Your task to perform on an android device: turn on the 24-hour format for clock Image 0: 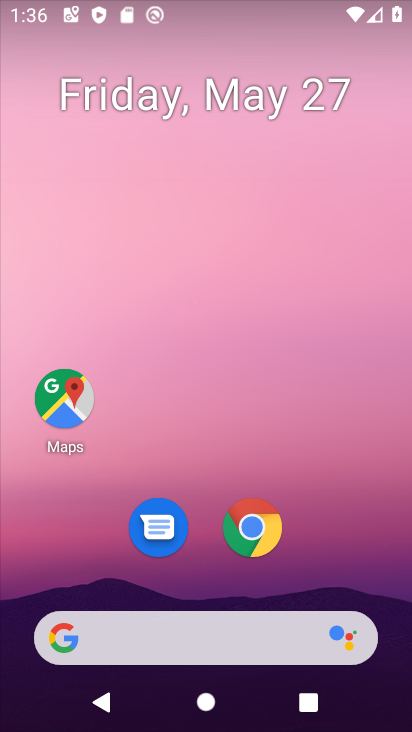
Step 0: drag from (199, 577) to (187, 200)
Your task to perform on an android device: turn on the 24-hour format for clock Image 1: 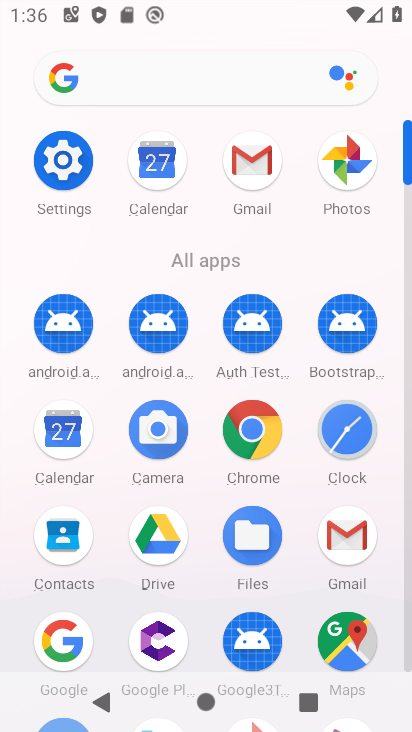
Step 1: click (348, 430)
Your task to perform on an android device: turn on the 24-hour format for clock Image 2: 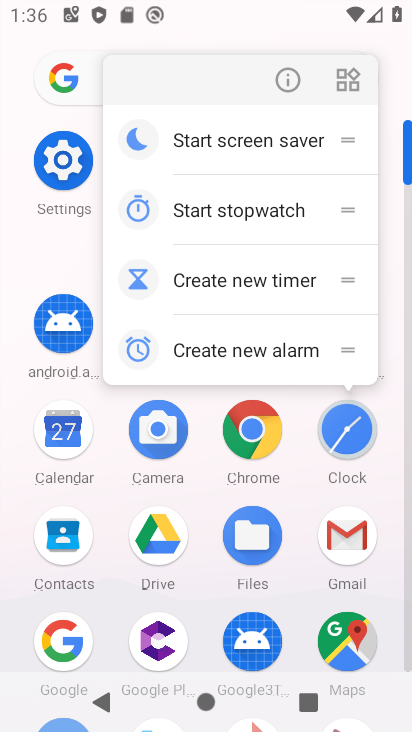
Step 2: click (345, 426)
Your task to perform on an android device: turn on the 24-hour format for clock Image 3: 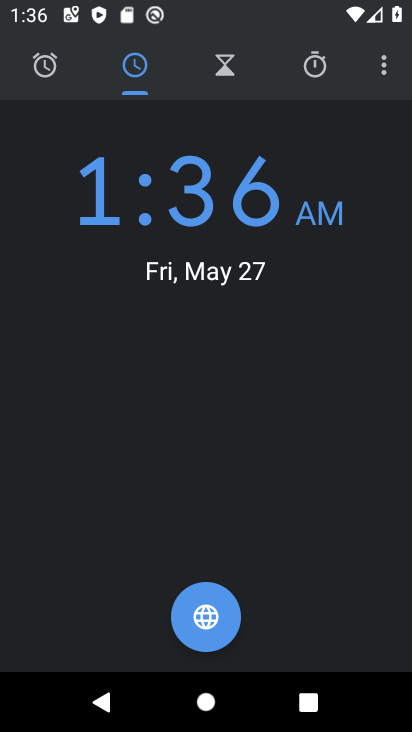
Step 3: click (386, 67)
Your task to perform on an android device: turn on the 24-hour format for clock Image 4: 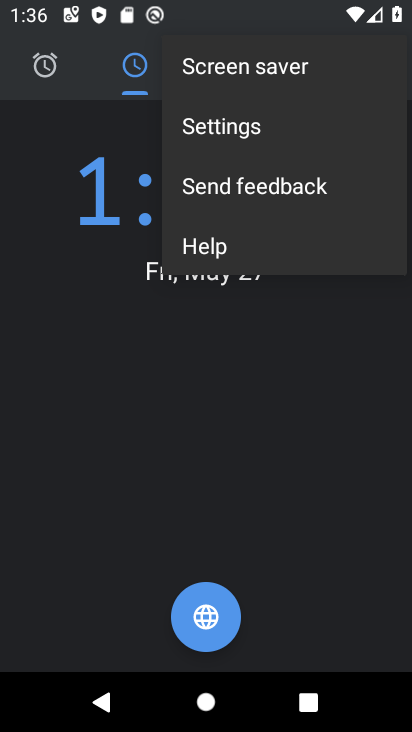
Step 4: click (249, 137)
Your task to perform on an android device: turn on the 24-hour format for clock Image 5: 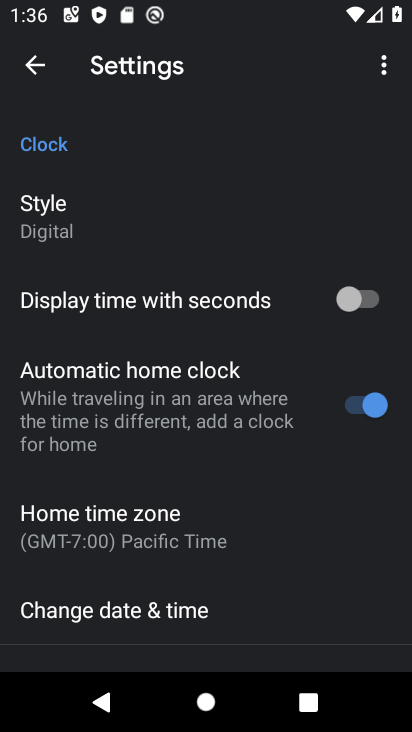
Step 5: drag from (113, 516) to (176, 192)
Your task to perform on an android device: turn on the 24-hour format for clock Image 6: 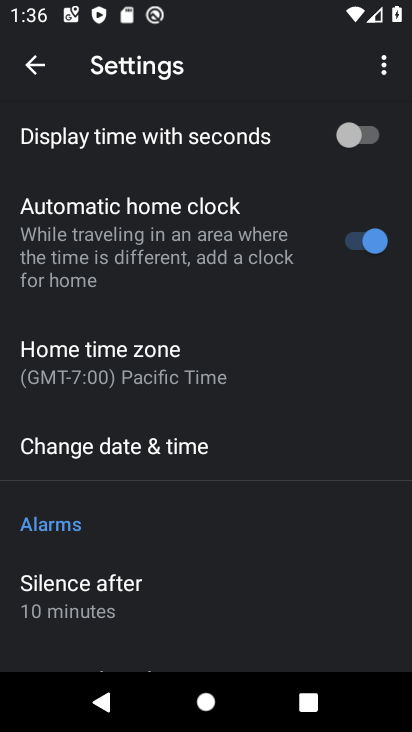
Step 6: click (131, 443)
Your task to perform on an android device: turn on the 24-hour format for clock Image 7: 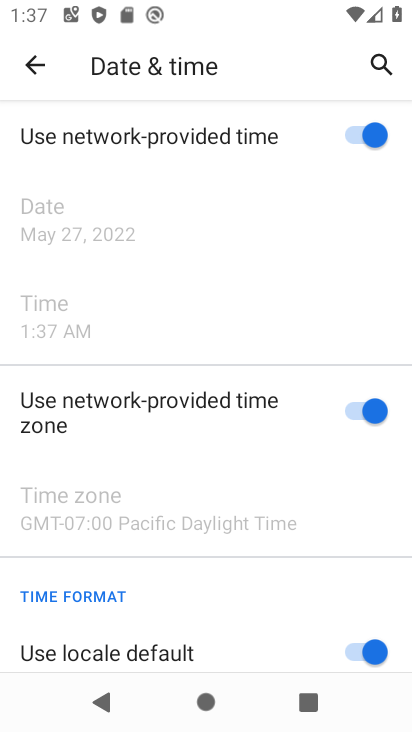
Step 7: drag from (184, 506) to (343, 127)
Your task to perform on an android device: turn on the 24-hour format for clock Image 8: 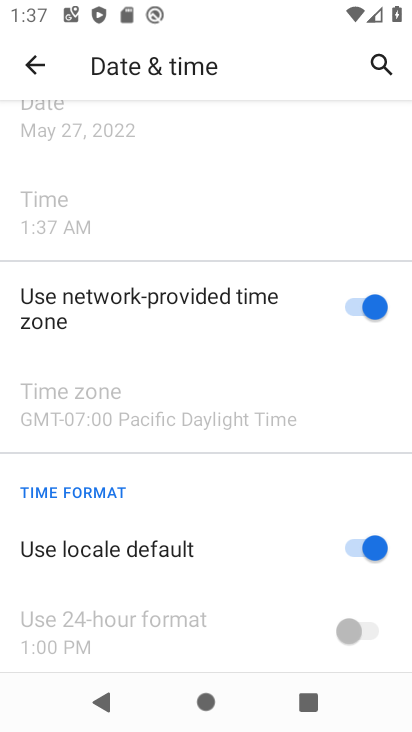
Step 8: click (351, 551)
Your task to perform on an android device: turn on the 24-hour format for clock Image 9: 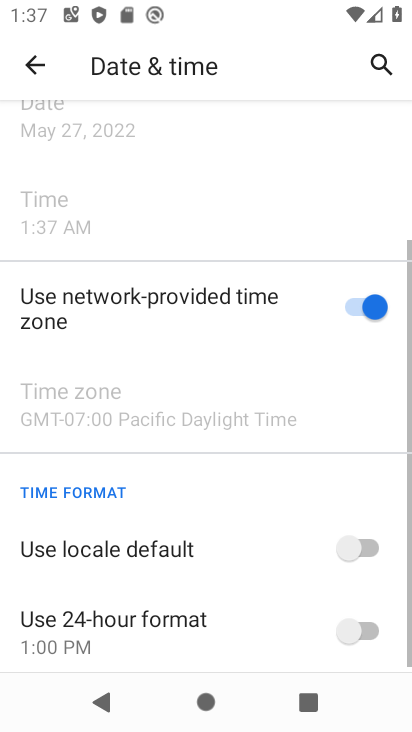
Step 9: click (363, 630)
Your task to perform on an android device: turn on the 24-hour format for clock Image 10: 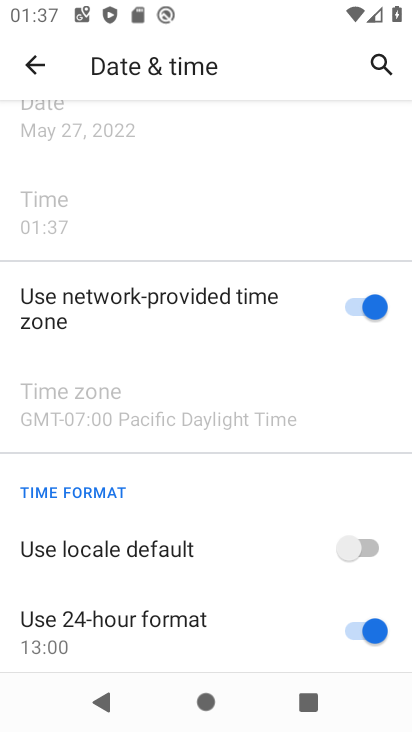
Step 10: task complete